Your task to perform on an android device: make emails show in primary in the gmail app Image 0: 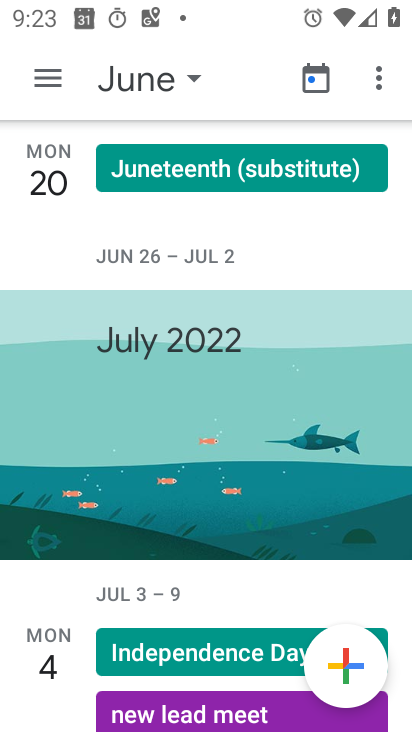
Step 0: press back button
Your task to perform on an android device: make emails show in primary in the gmail app Image 1: 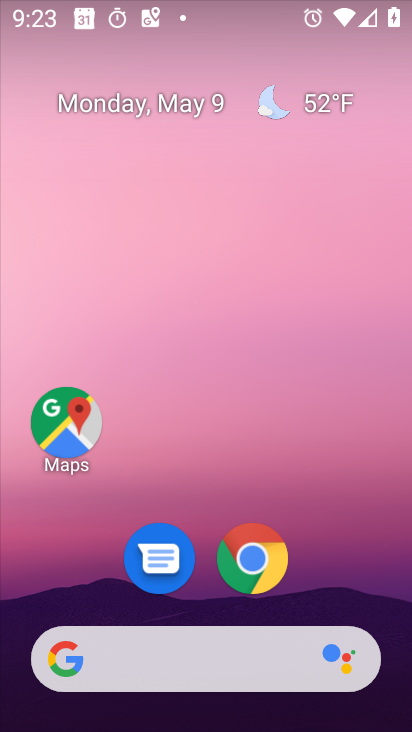
Step 1: drag from (213, 583) to (194, 105)
Your task to perform on an android device: make emails show in primary in the gmail app Image 2: 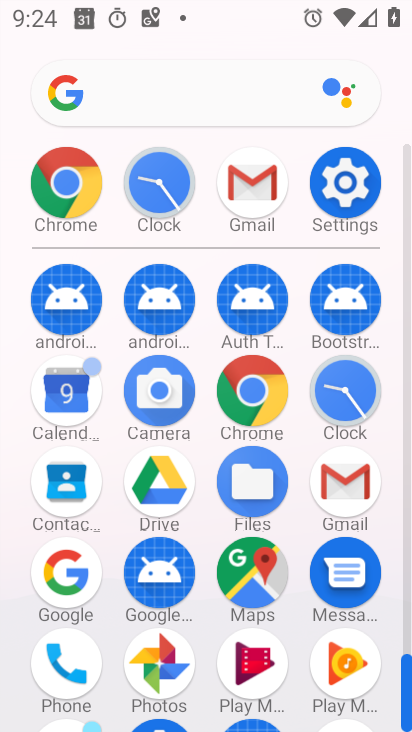
Step 2: click (264, 175)
Your task to perform on an android device: make emails show in primary in the gmail app Image 3: 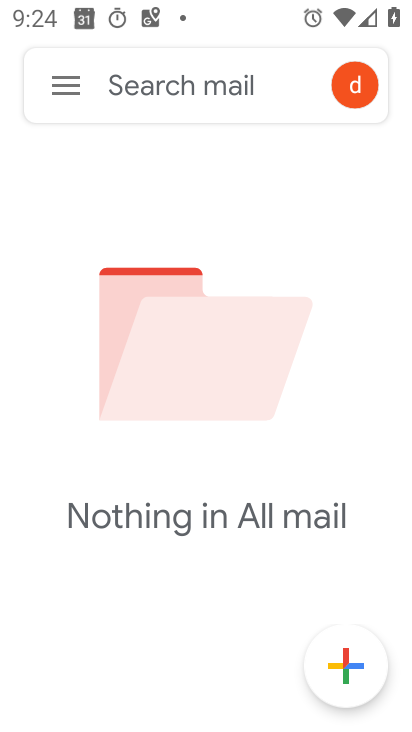
Step 3: click (42, 76)
Your task to perform on an android device: make emails show in primary in the gmail app Image 4: 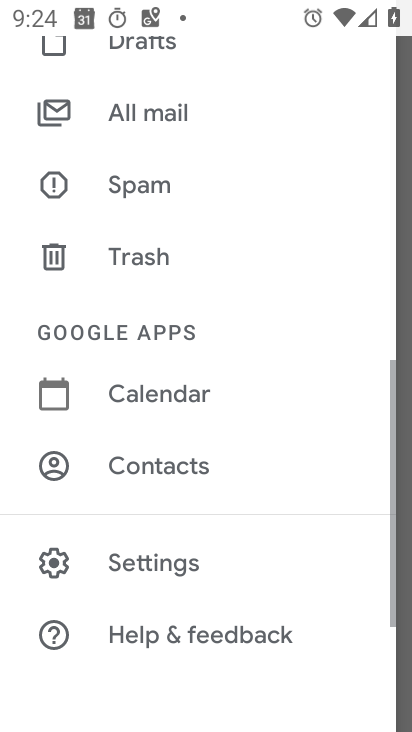
Step 4: click (190, 558)
Your task to perform on an android device: make emails show in primary in the gmail app Image 5: 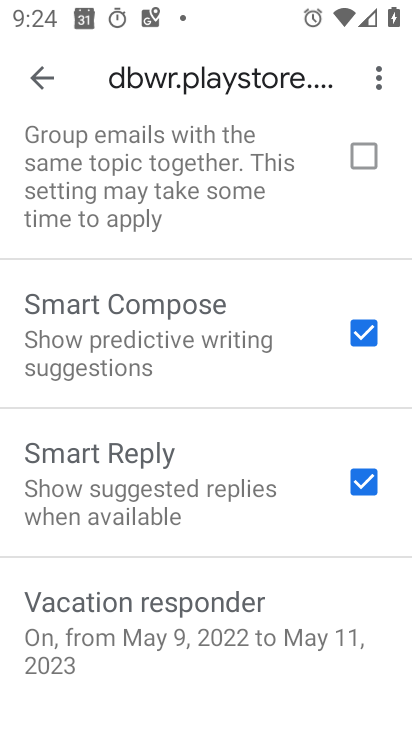
Step 5: task complete